Your task to perform on an android device: toggle location history Image 0: 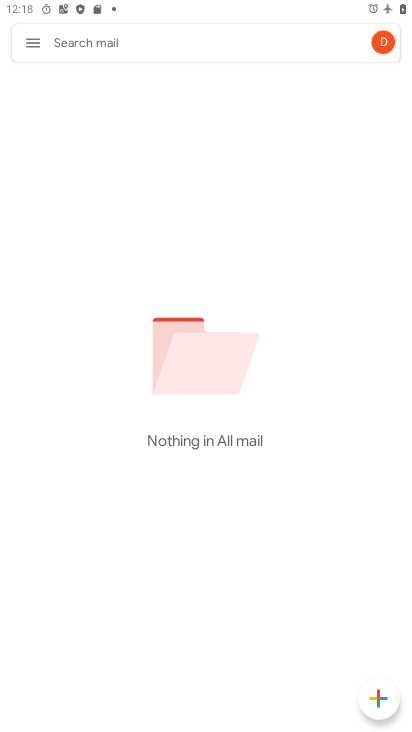
Step 0: press home button
Your task to perform on an android device: toggle location history Image 1: 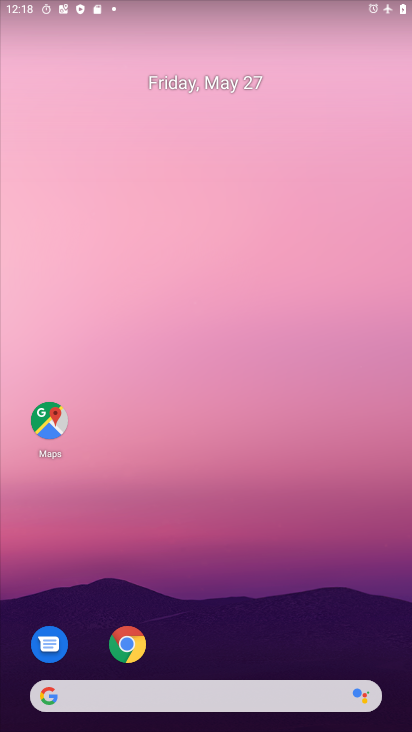
Step 1: drag from (206, 638) to (200, 189)
Your task to perform on an android device: toggle location history Image 2: 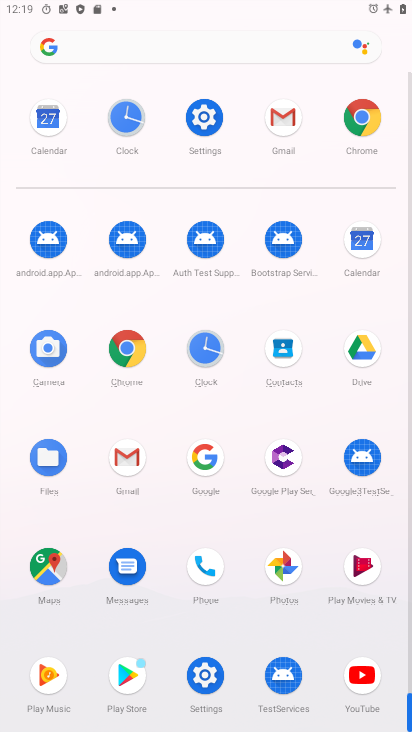
Step 2: click (190, 122)
Your task to perform on an android device: toggle location history Image 3: 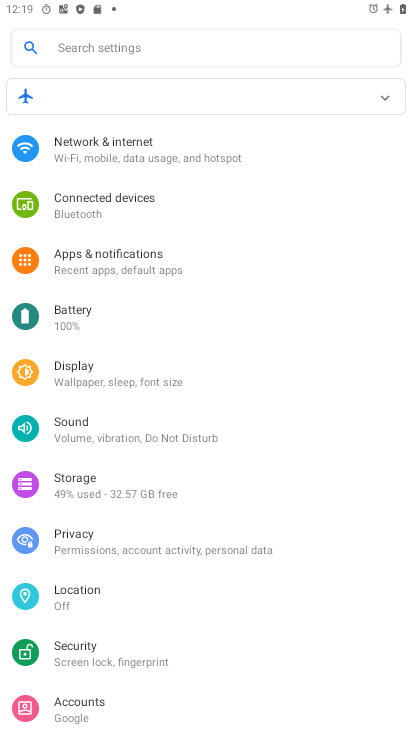
Step 3: click (134, 591)
Your task to perform on an android device: toggle location history Image 4: 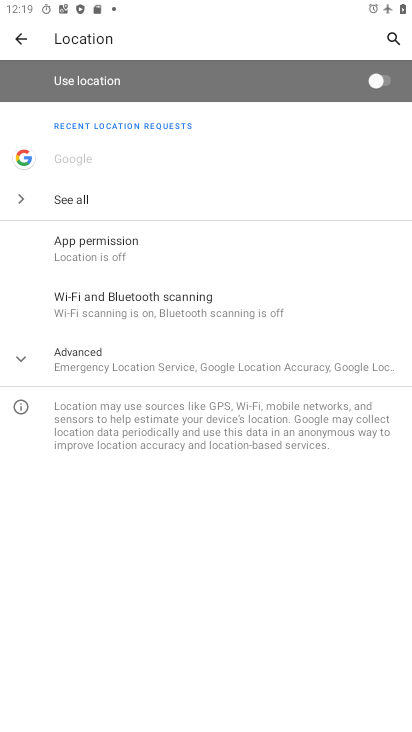
Step 4: click (188, 364)
Your task to perform on an android device: toggle location history Image 5: 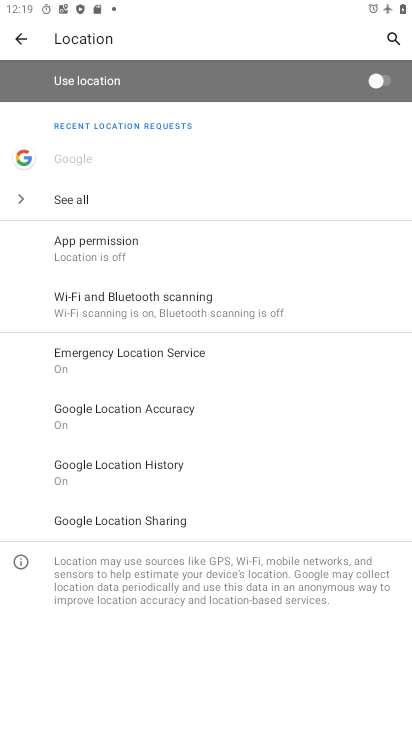
Step 5: click (191, 469)
Your task to perform on an android device: toggle location history Image 6: 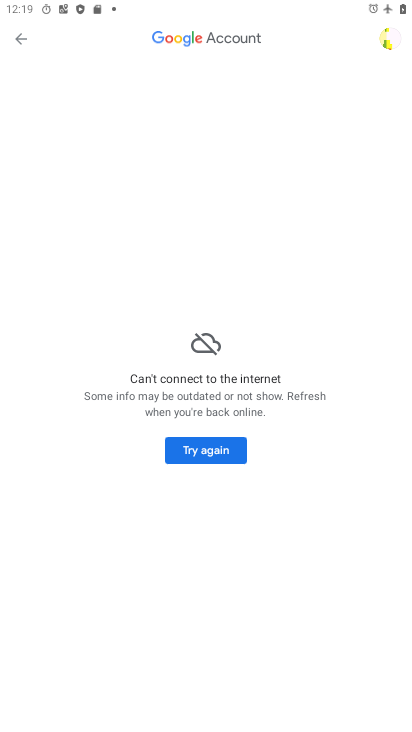
Step 6: task complete